Your task to perform on an android device: change the clock display to digital Image 0: 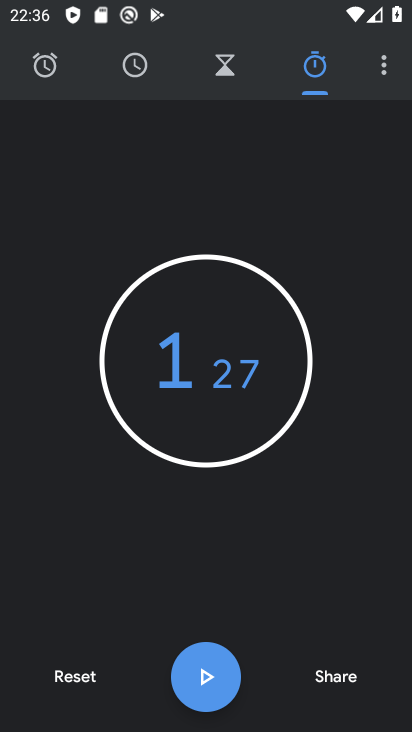
Step 0: click (375, 57)
Your task to perform on an android device: change the clock display to digital Image 1: 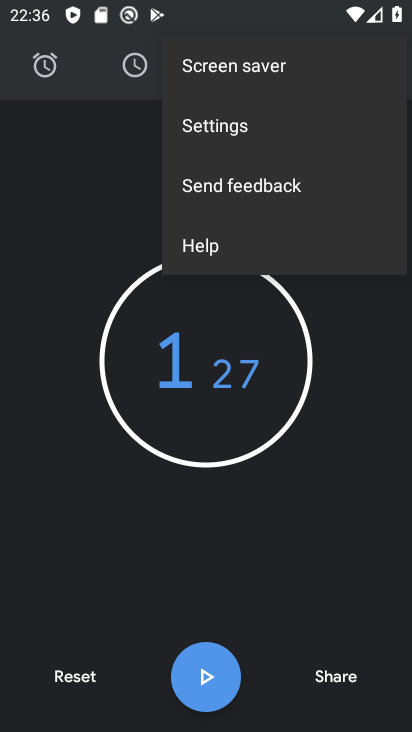
Step 1: click (243, 110)
Your task to perform on an android device: change the clock display to digital Image 2: 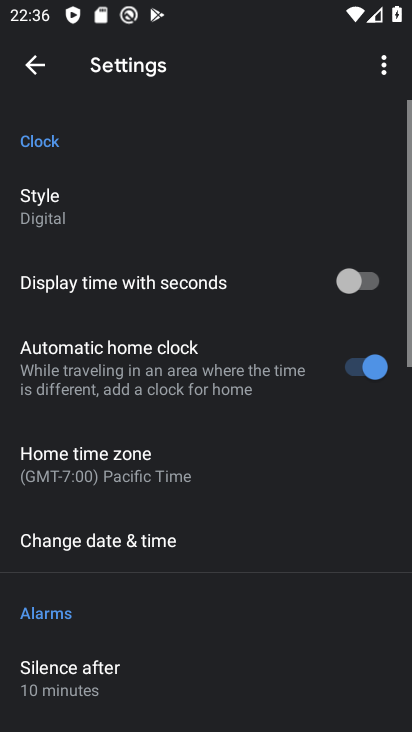
Step 2: click (43, 199)
Your task to perform on an android device: change the clock display to digital Image 3: 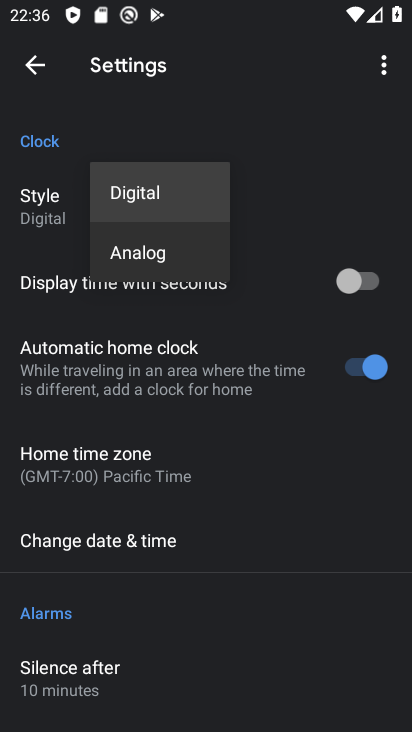
Step 3: task complete